Your task to perform on an android device: toggle show notifications on the lock screen Image 0: 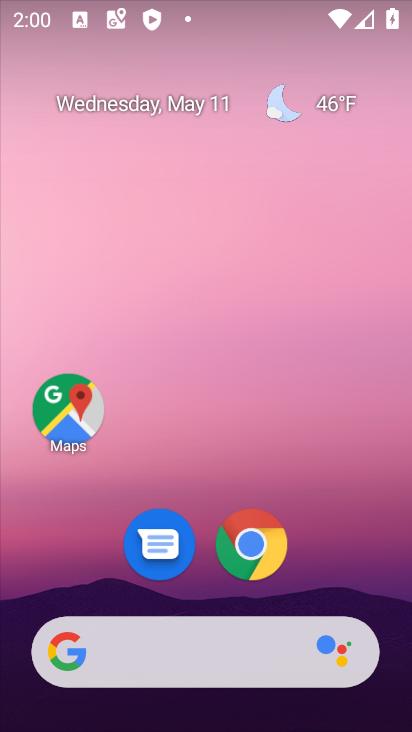
Step 0: drag from (391, 631) to (291, 57)
Your task to perform on an android device: toggle show notifications on the lock screen Image 1: 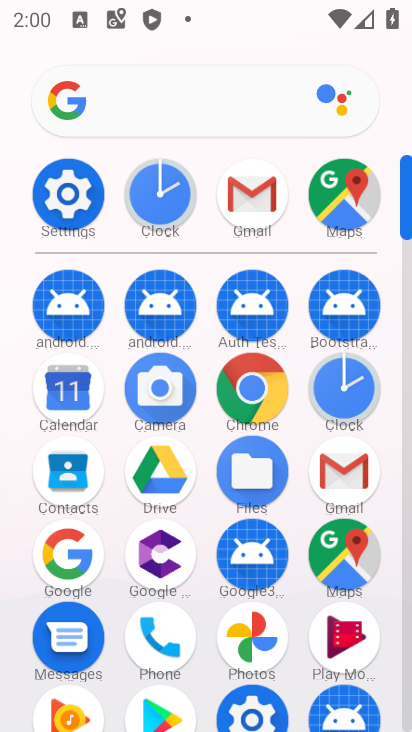
Step 1: click (406, 711)
Your task to perform on an android device: toggle show notifications on the lock screen Image 2: 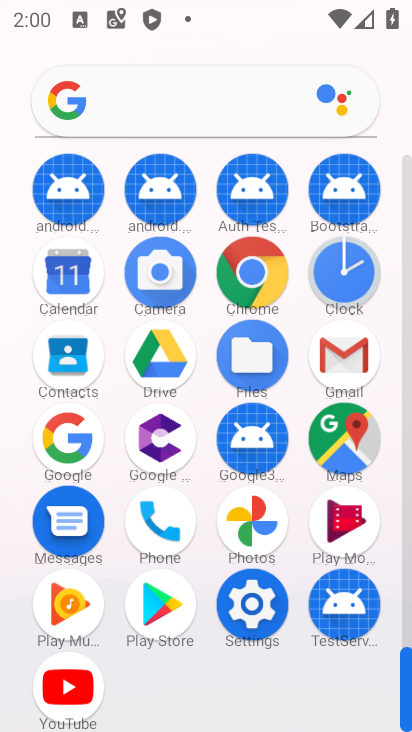
Step 2: click (252, 604)
Your task to perform on an android device: toggle show notifications on the lock screen Image 3: 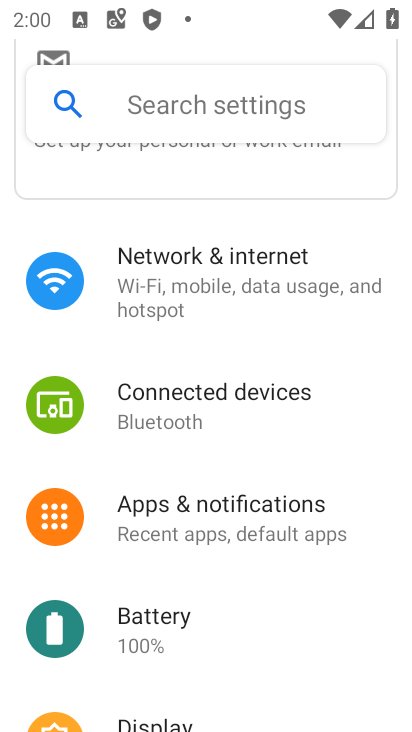
Step 3: click (184, 502)
Your task to perform on an android device: toggle show notifications on the lock screen Image 4: 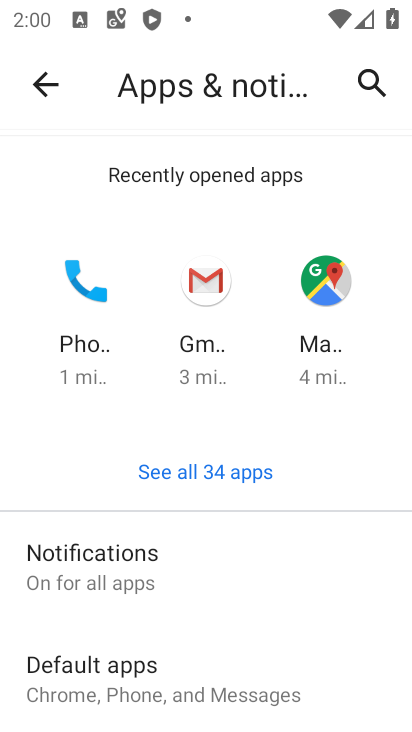
Step 4: click (95, 563)
Your task to perform on an android device: toggle show notifications on the lock screen Image 5: 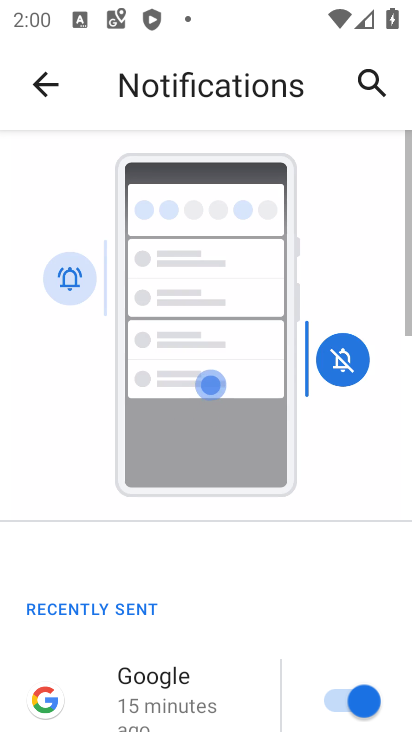
Step 5: drag from (345, 633) to (288, 161)
Your task to perform on an android device: toggle show notifications on the lock screen Image 6: 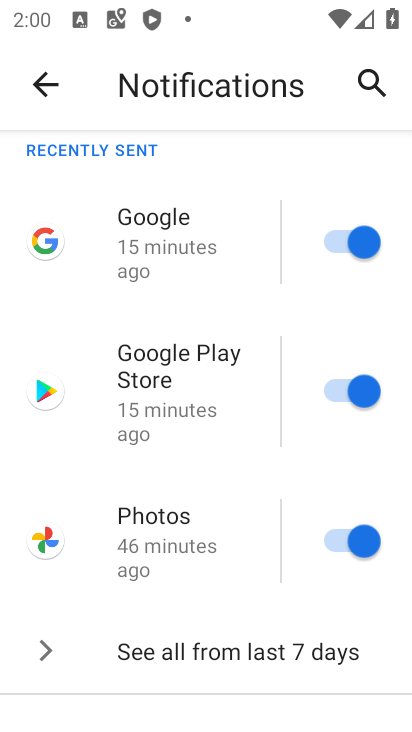
Step 6: drag from (275, 622) to (271, 183)
Your task to perform on an android device: toggle show notifications on the lock screen Image 7: 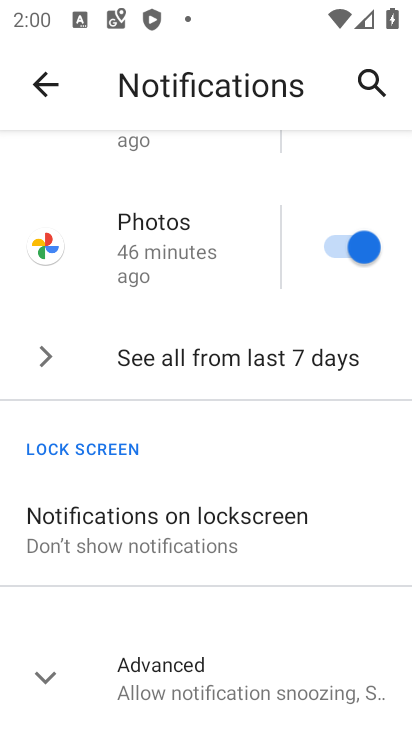
Step 7: click (74, 532)
Your task to perform on an android device: toggle show notifications on the lock screen Image 8: 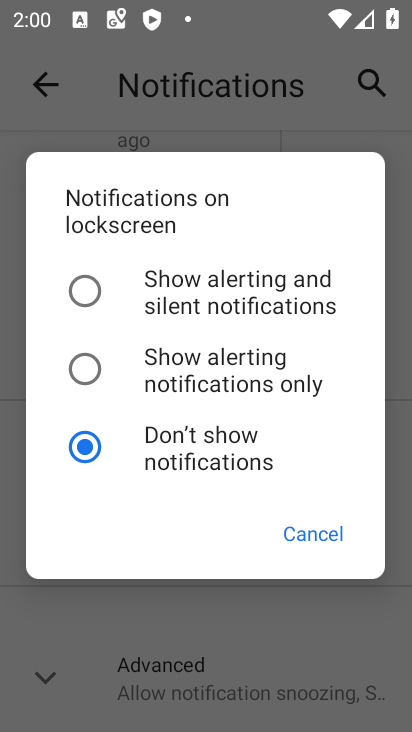
Step 8: click (88, 294)
Your task to perform on an android device: toggle show notifications on the lock screen Image 9: 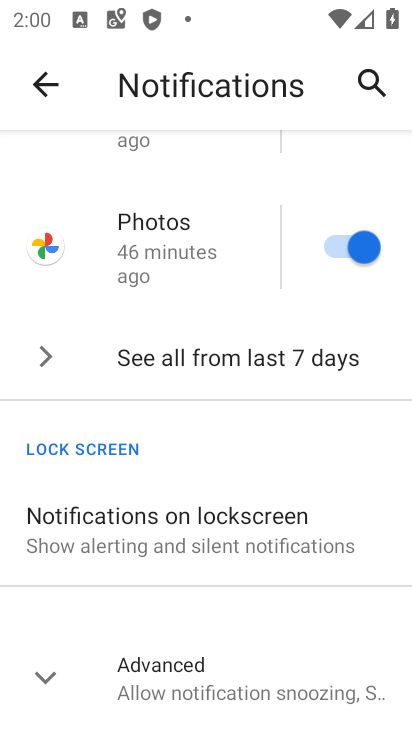
Step 9: task complete